Your task to perform on an android device: change text size in settings app Image 0: 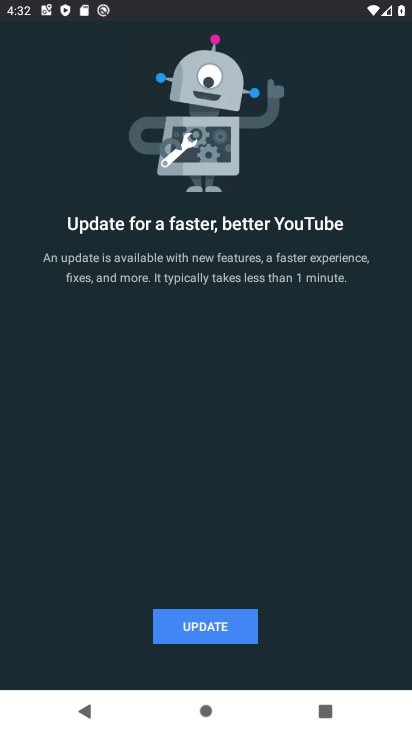
Step 0: press home button
Your task to perform on an android device: change text size in settings app Image 1: 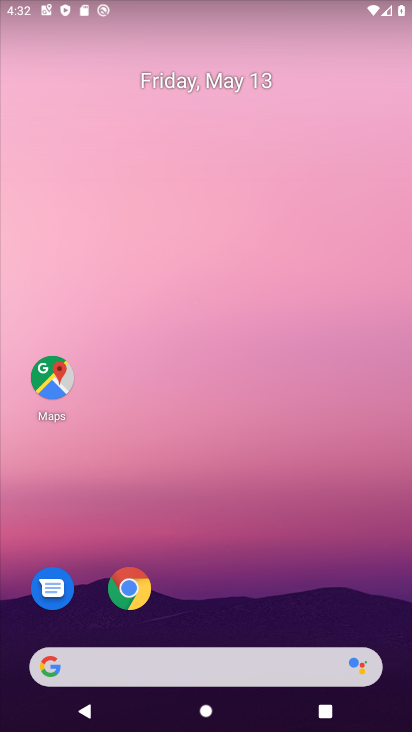
Step 1: drag from (230, 630) to (321, 380)
Your task to perform on an android device: change text size in settings app Image 2: 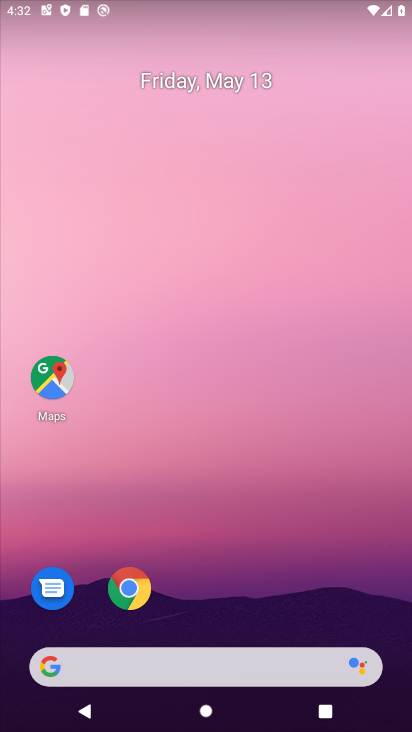
Step 2: drag from (157, 633) to (395, 51)
Your task to perform on an android device: change text size in settings app Image 3: 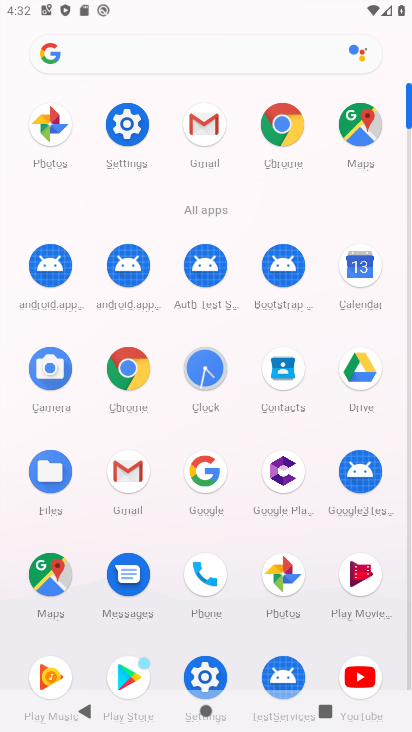
Step 3: click (131, 157)
Your task to perform on an android device: change text size in settings app Image 4: 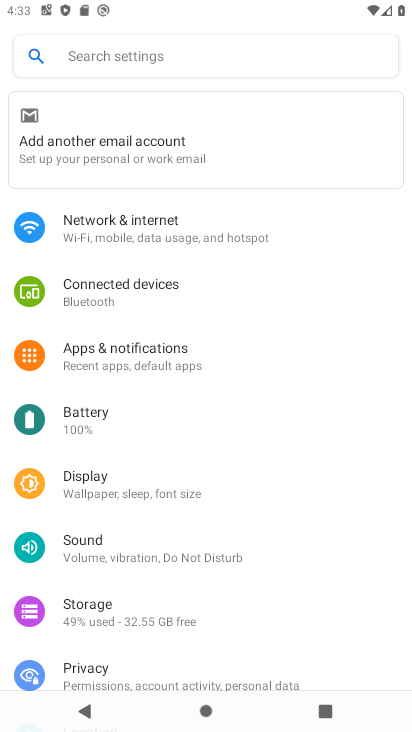
Step 4: click (156, 506)
Your task to perform on an android device: change text size in settings app Image 5: 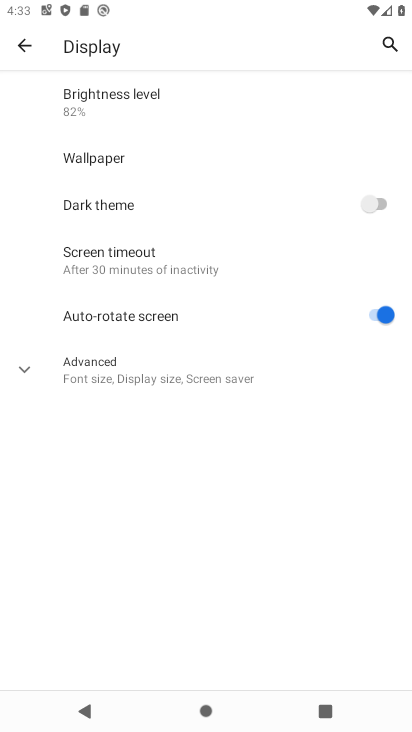
Step 5: click (187, 373)
Your task to perform on an android device: change text size in settings app Image 6: 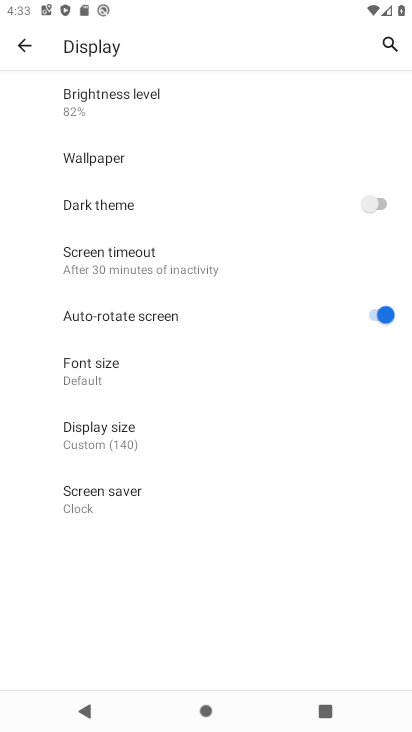
Step 6: click (171, 364)
Your task to perform on an android device: change text size in settings app Image 7: 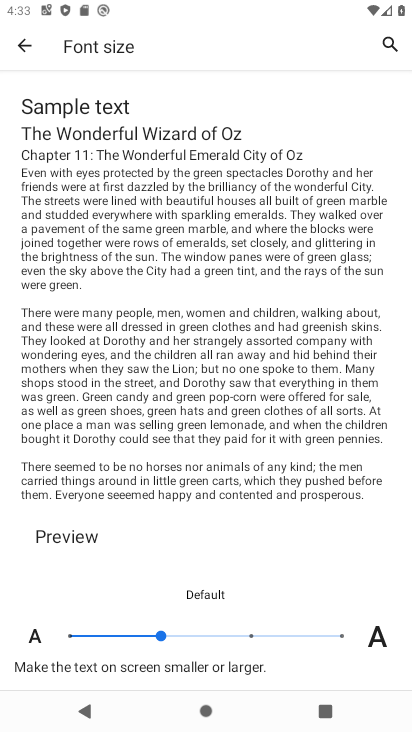
Step 7: click (62, 643)
Your task to perform on an android device: change text size in settings app Image 8: 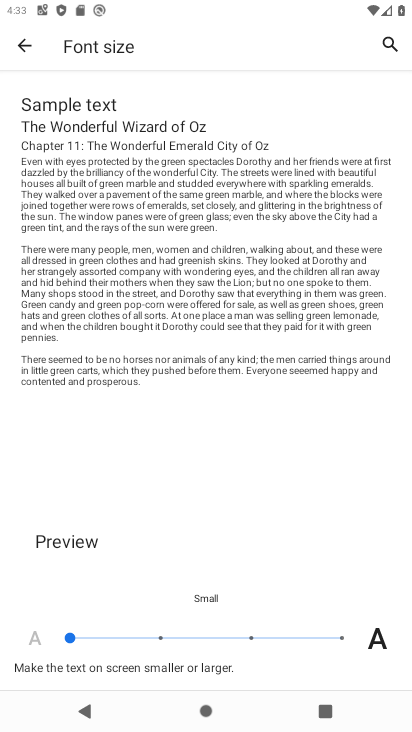
Step 8: task complete